Your task to perform on an android device: turn off data saver in the chrome app Image 0: 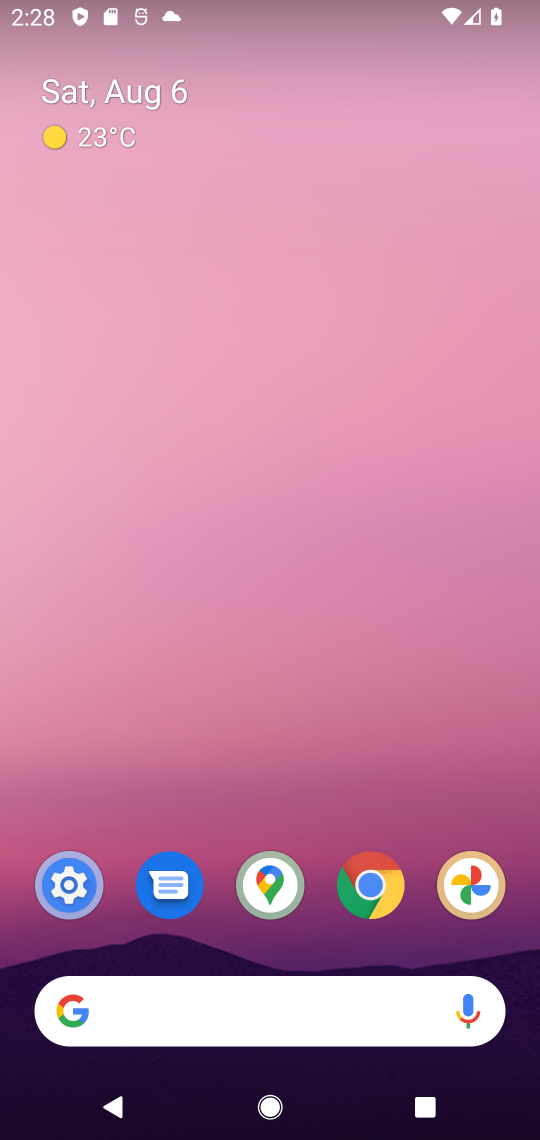
Step 0: drag from (430, 918) to (273, 35)
Your task to perform on an android device: turn off data saver in the chrome app Image 1: 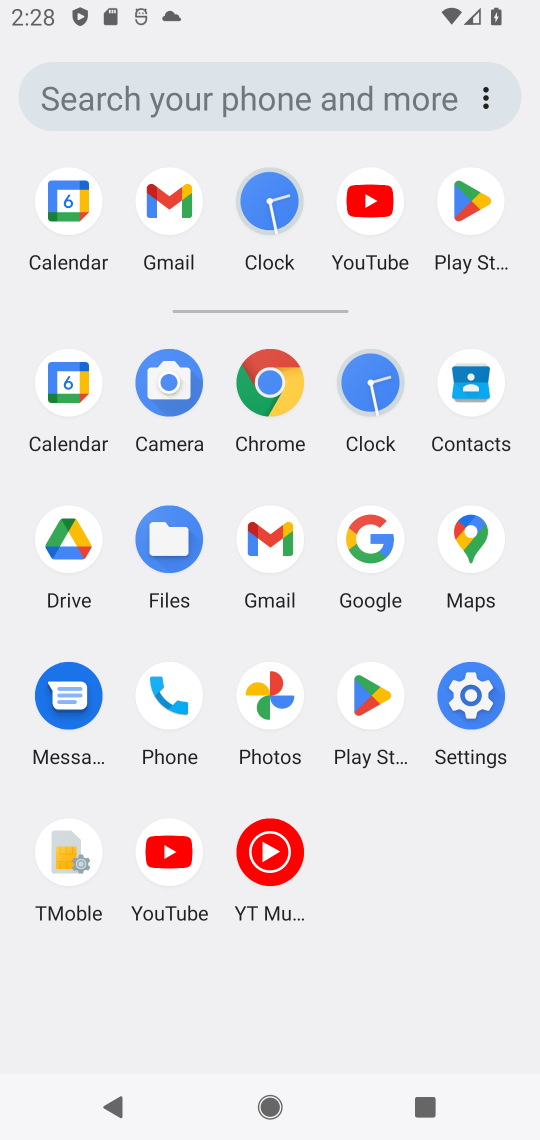
Step 1: click (263, 411)
Your task to perform on an android device: turn off data saver in the chrome app Image 2: 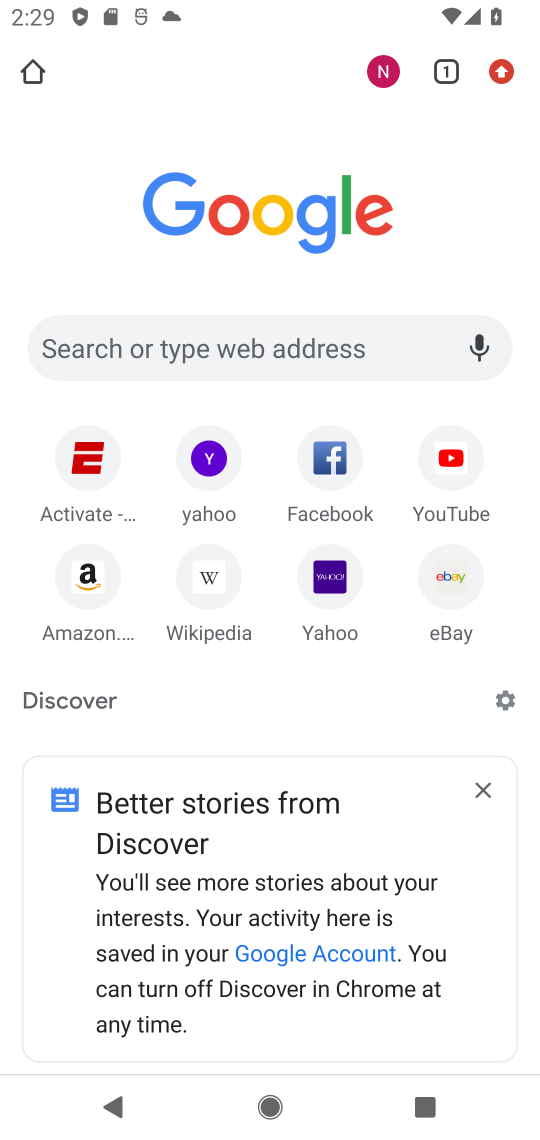
Step 2: click (504, 60)
Your task to perform on an android device: turn off data saver in the chrome app Image 3: 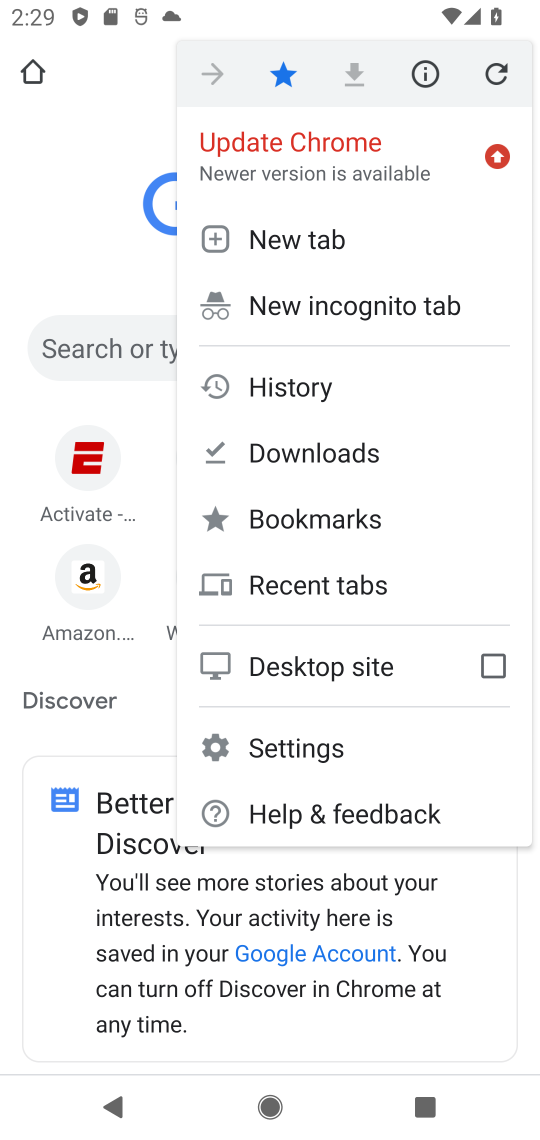
Step 3: click (255, 758)
Your task to perform on an android device: turn off data saver in the chrome app Image 4: 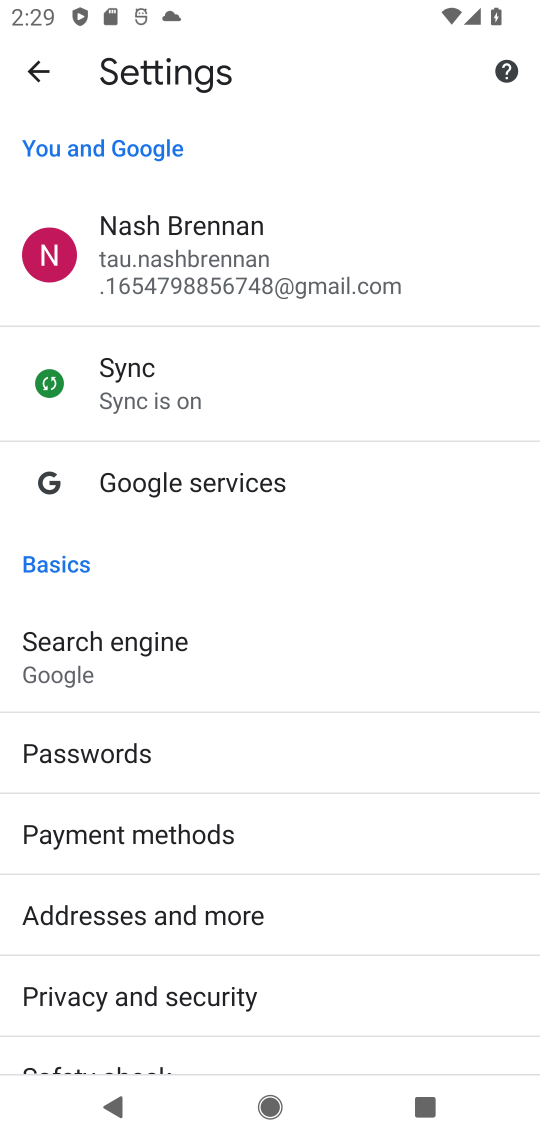
Step 4: drag from (213, 1000) to (151, 249)
Your task to perform on an android device: turn off data saver in the chrome app Image 5: 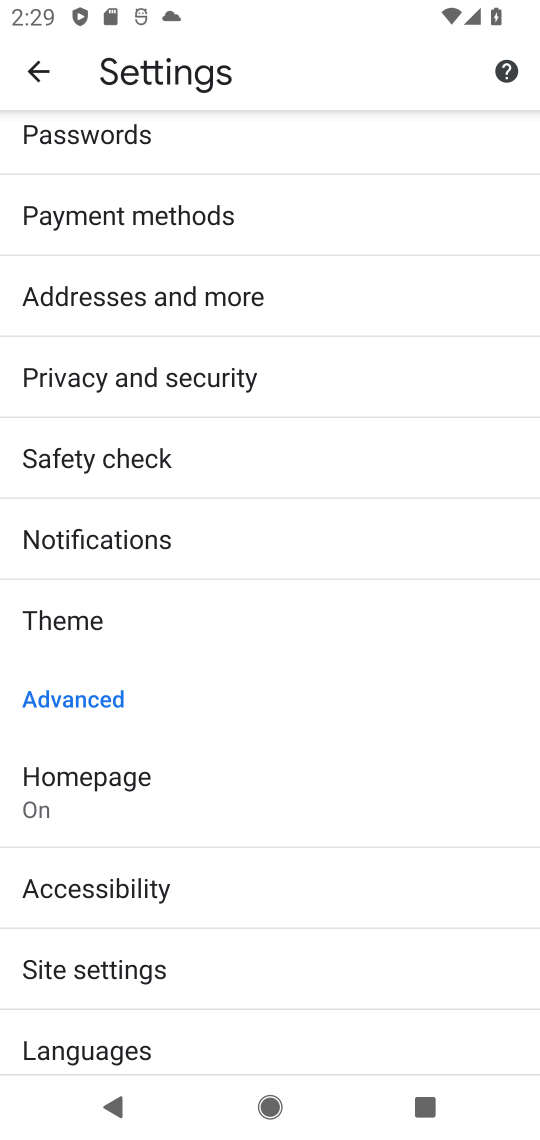
Step 5: drag from (240, 994) to (275, 276)
Your task to perform on an android device: turn off data saver in the chrome app Image 6: 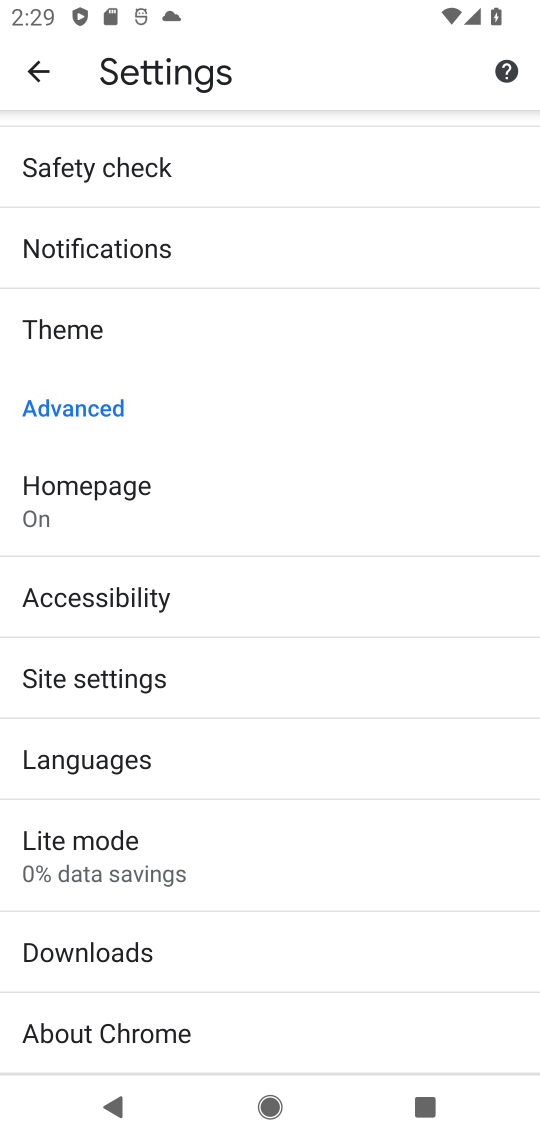
Step 6: click (178, 830)
Your task to perform on an android device: turn off data saver in the chrome app Image 7: 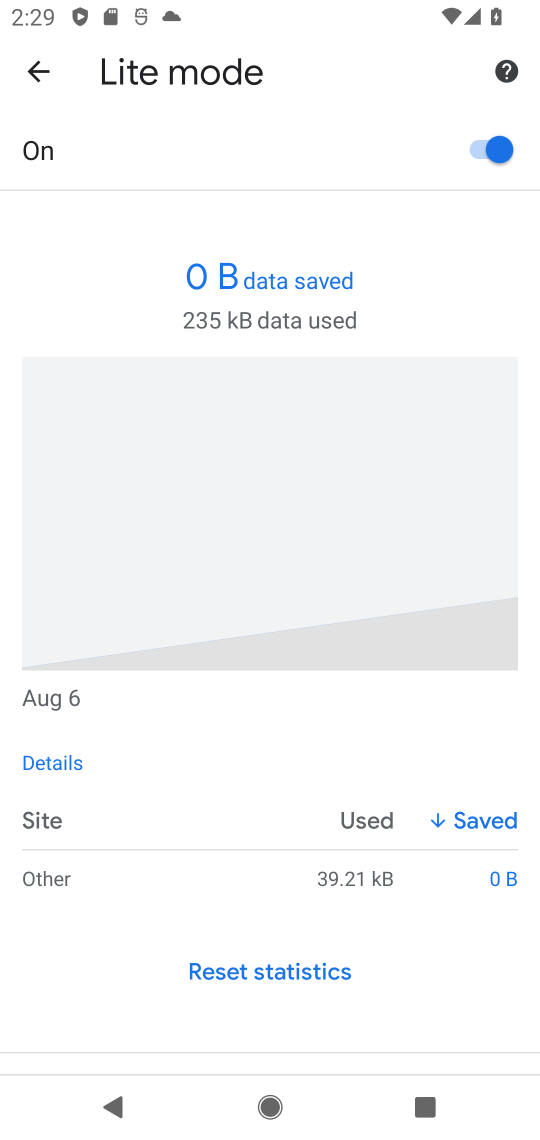
Step 7: click (464, 154)
Your task to perform on an android device: turn off data saver in the chrome app Image 8: 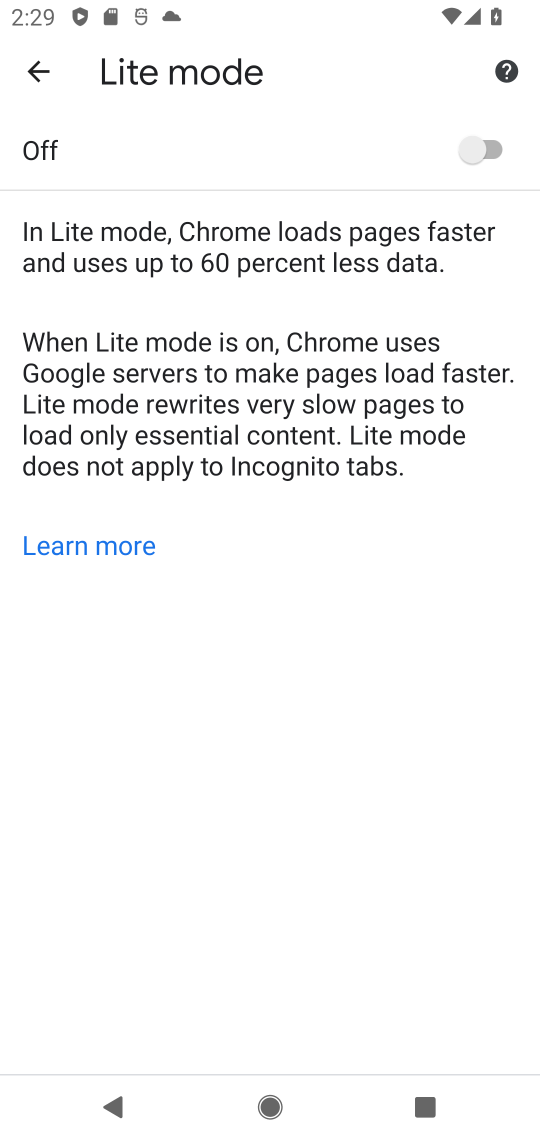
Step 8: task complete